Your task to perform on an android device: Open calendar and show me the first week of next month Image 0: 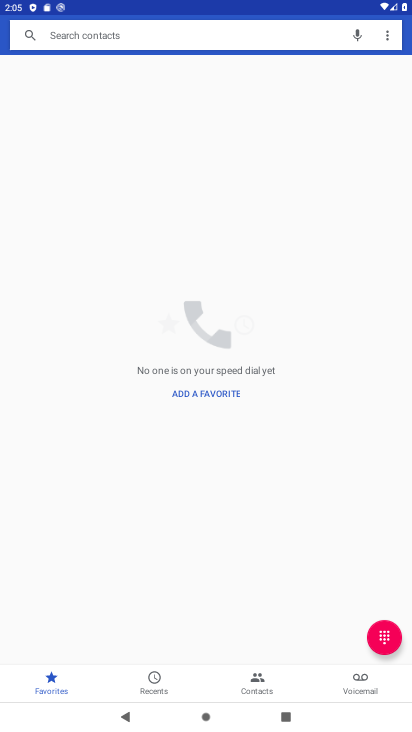
Step 0: press home button
Your task to perform on an android device: Open calendar and show me the first week of next month Image 1: 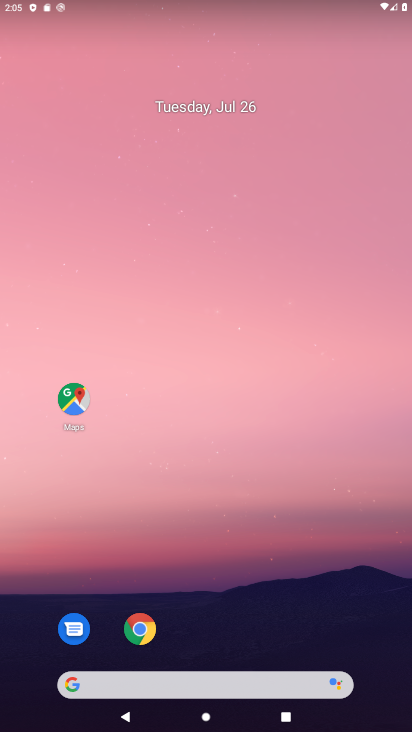
Step 1: drag from (285, 613) to (242, 110)
Your task to perform on an android device: Open calendar and show me the first week of next month Image 2: 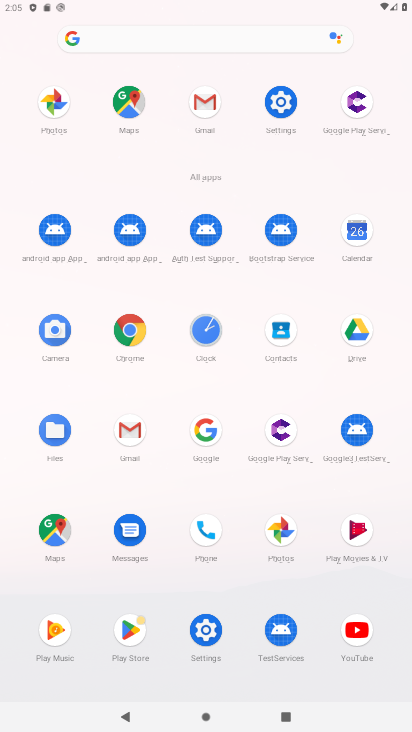
Step 2: click (360, 224)
Your task to perform on an android device: Open calendar and show me the first week of next month Image 3: 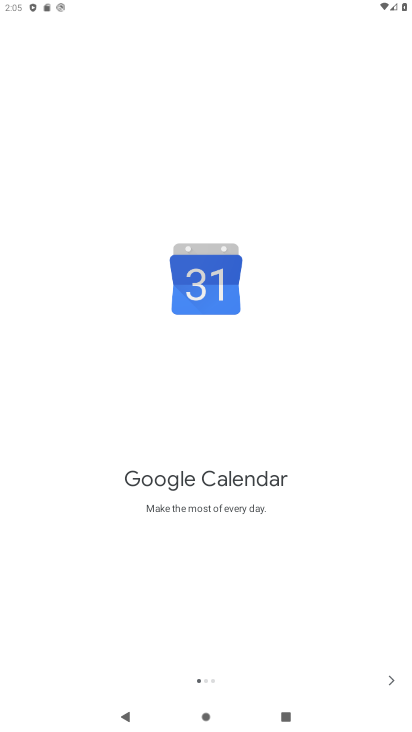
Step 3: click (384, 680)
Your task to perform on an android device: Open calendar and show me the first week of next month Image 4: 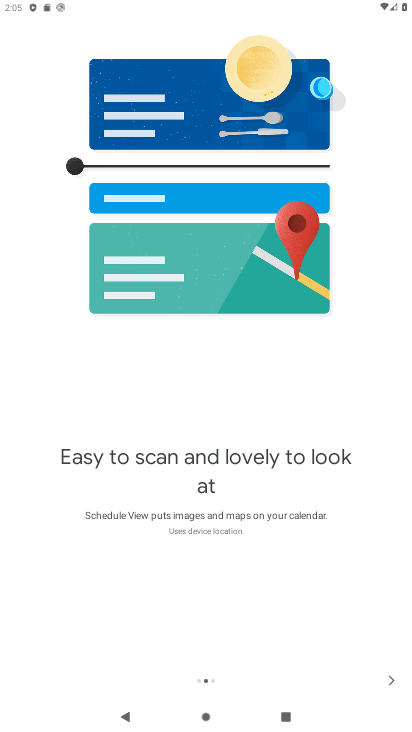
Step 4: click (384, 680)
Your task to perform on an android device: Open calendar and show me the first week of next month Image 5: 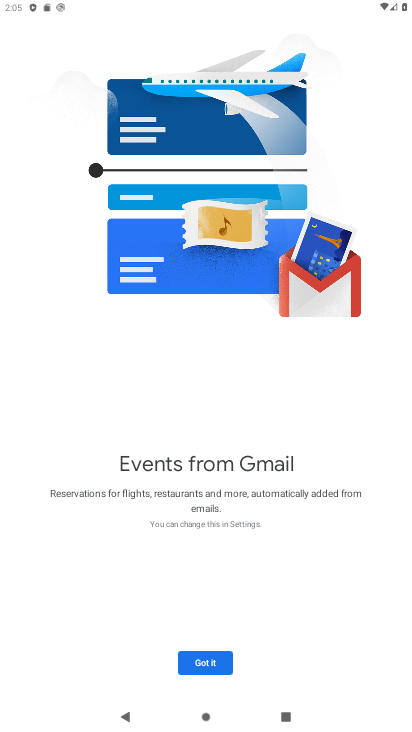
Step 5: click (222, 663)
Your task to perform on an android device: Open calendar and show me the first week of next month Image 6: 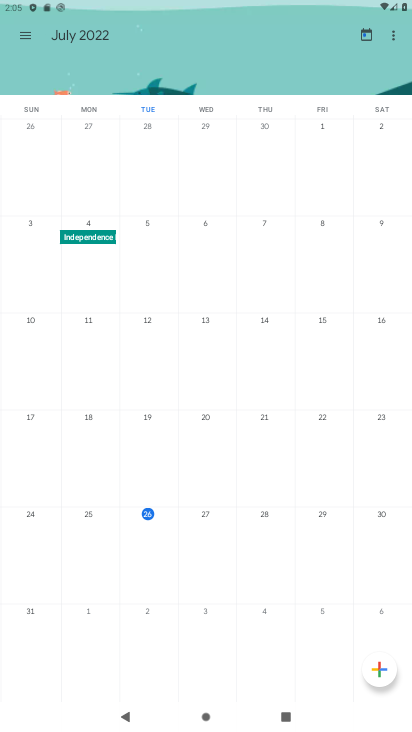
Step 6: drag from (389, 301) to (12, 289)
Your task to perform on an android device: Open calendar and show me the first week of next month Image 7: 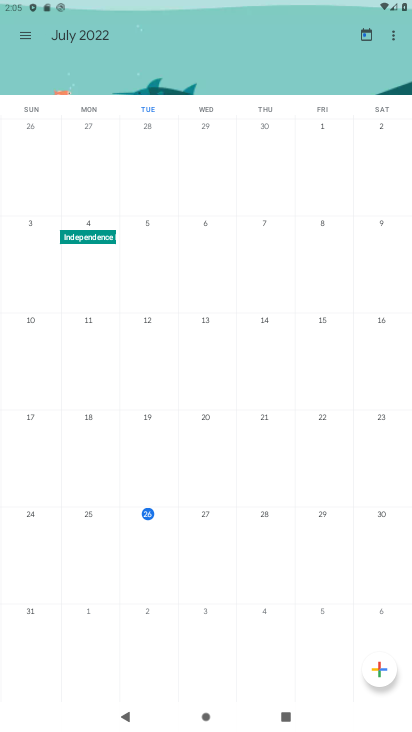
Step 7: drag from (395, 319) to (35, 320)
Your task to perform on an android device: Open calendar and show me the first week of next month Image 8: 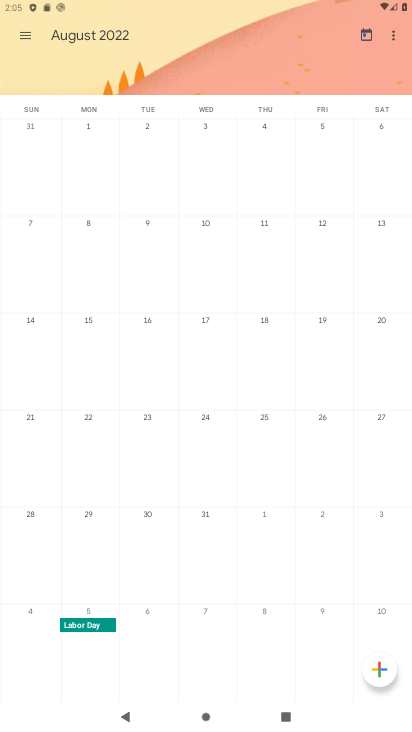
Step 8: click (89, 146)
Your task to perform on an android device: Open calendar and show me the first week of next month Image 9: 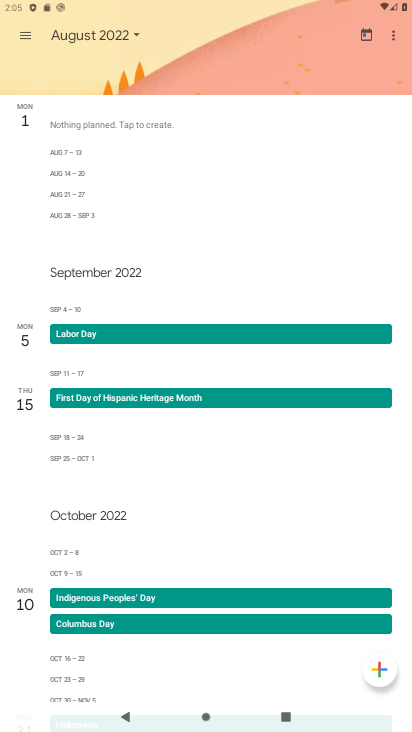
Step 9: task complete